Your task to perform on an android device: Open wifi settings Image 0: 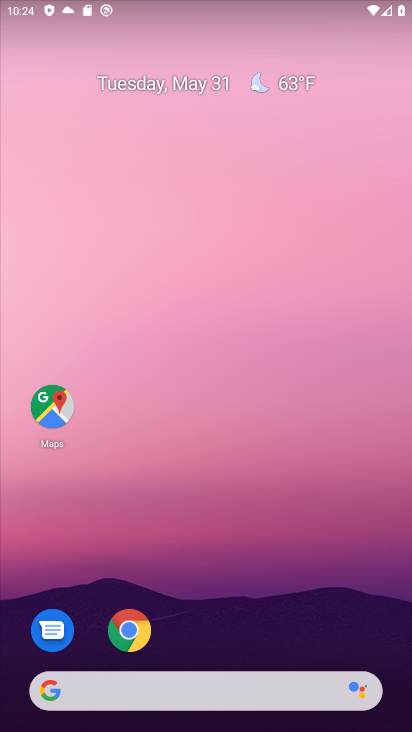
Step 0: drag from (177, 646) to (157, 249)
Your task to perform on an android device: Open wifi settings Image 1: 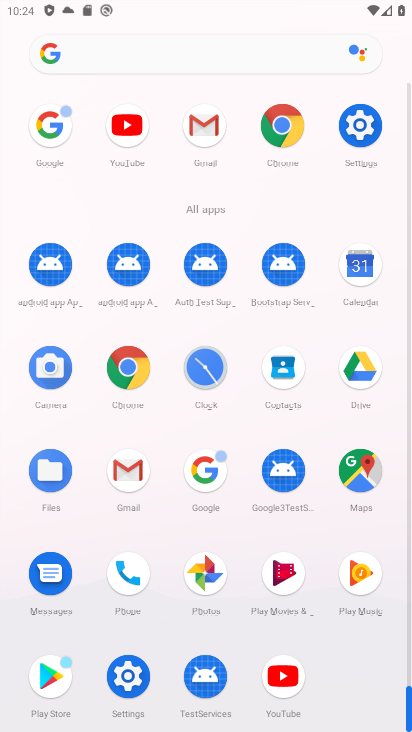
Step 1: click (356, 120)
Your task to perform on an android device: Open wifi settings Image 2: 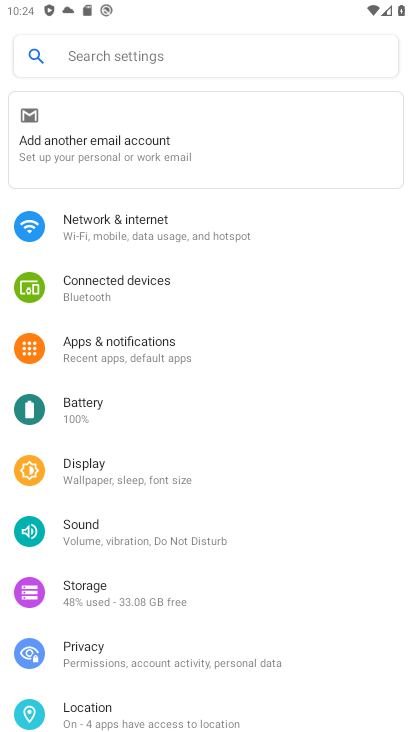
Step 2: click (131, 231)
Your task to perform on an android device: Open wifi settings Image 3: 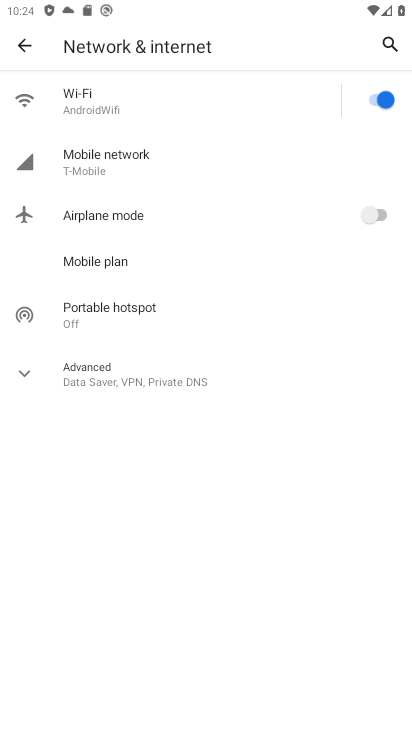
Step 3: click (101, 112)
Your task to perform on an android device: Open wifi settings Image 4: 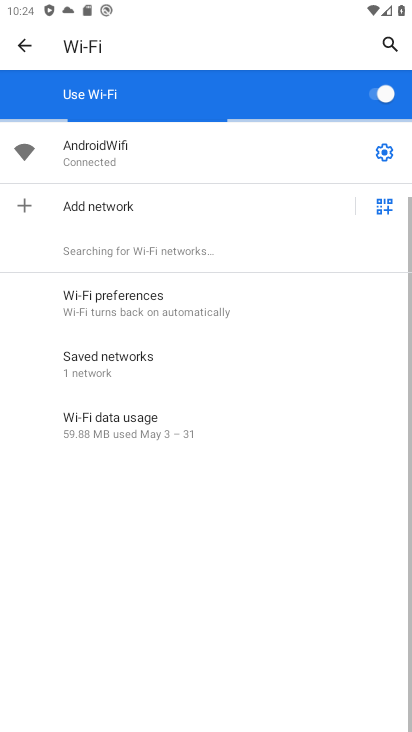
Step 4: task complete